Your task to perform on an android device: clear history in the chrome app Image 0: 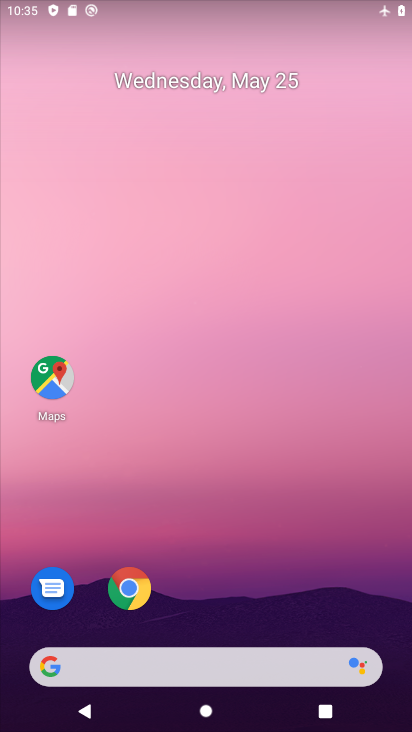
Step 0: click (132, 584)
Your task to perform on an android device: clear history in the chrome app Image 1: 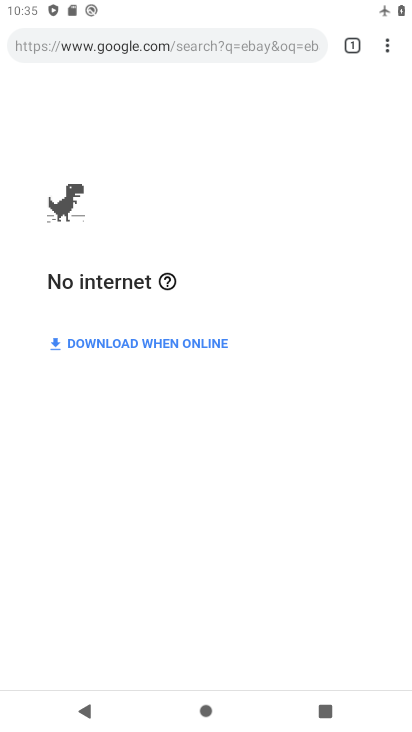
Step 1: drag from (384, 42) to (232, 252)
Your task to perform on an android device: clear history in the chrome app Image 2: 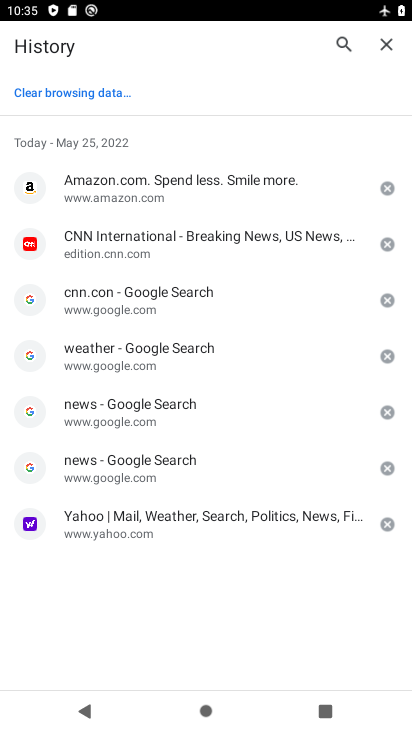
Step 2: click (101, 90)
Your task to perform on an android device: clear history in the chrome app Image 3: 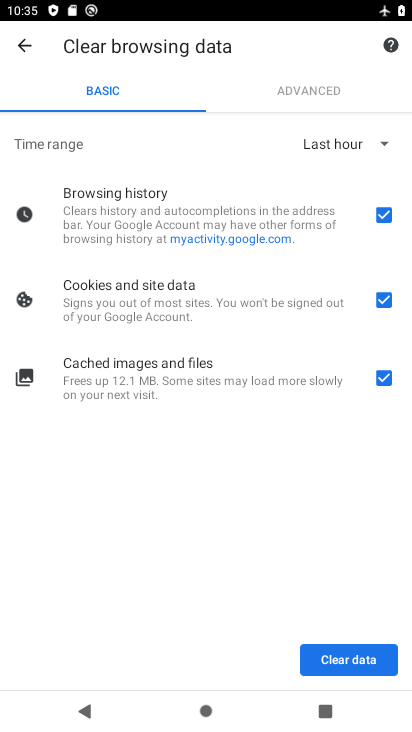
Step 3: click (349, 145)
Your task to perform on an android device: clear history in the chrome app Image 4: 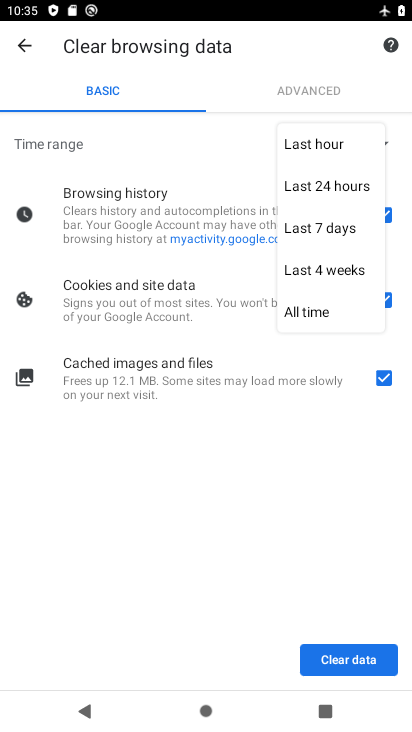
Step 4: click (285, 315)
Your task to perform on an android device: clear history in the chrome app Image 5: 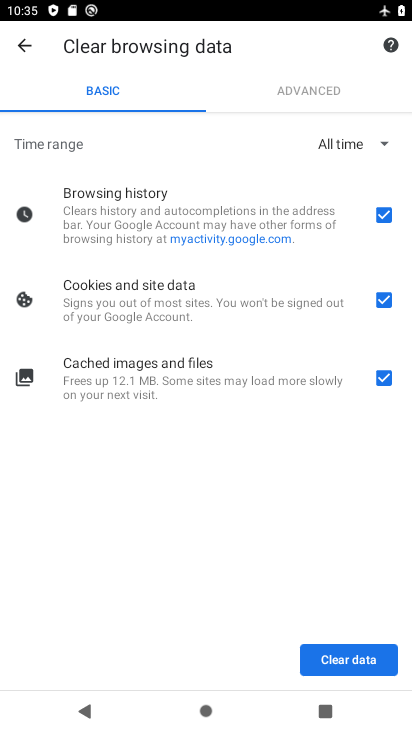
Step 5: click (337, 663)
Your task to perform on an android device: clear history in the chrome app Image 6: 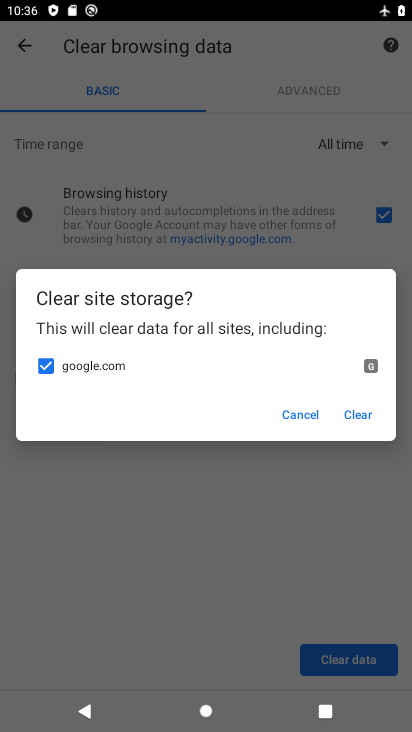
Step 6: click (368, 408)
Your task to perform on an android device: clear history in the chrome app Image 7: 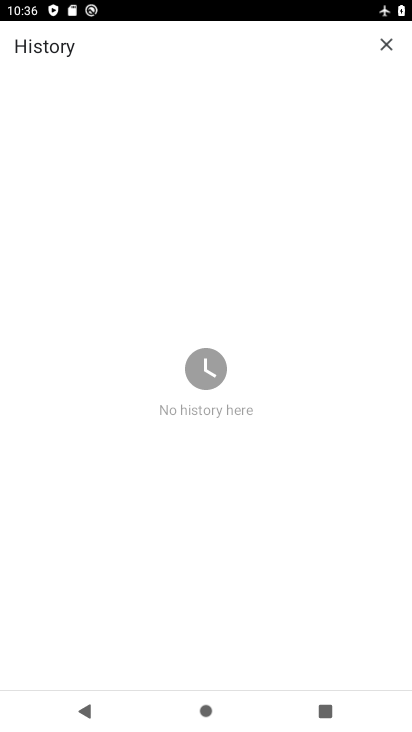
Step 7: task complete